Your task to perform on an android device: Go to battery settings Image 0: 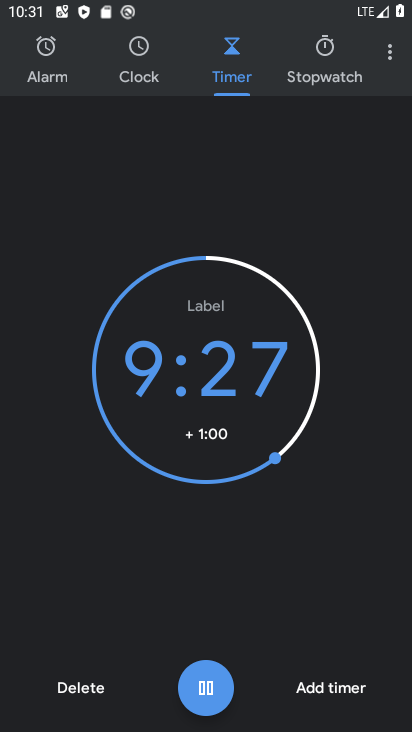
Step 0: drag from (250, 592) to (309, 423)
Your task to perform on an android device: Go to battery settings Image 1: 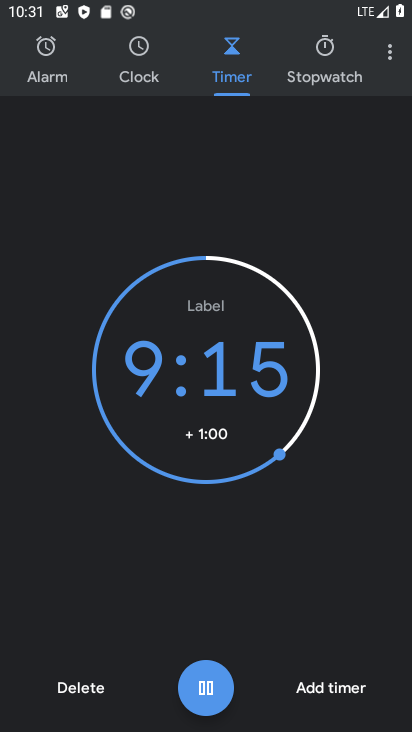
Step 1: press home button
Your task to perform on an android device: Go to battery settings Image 2: 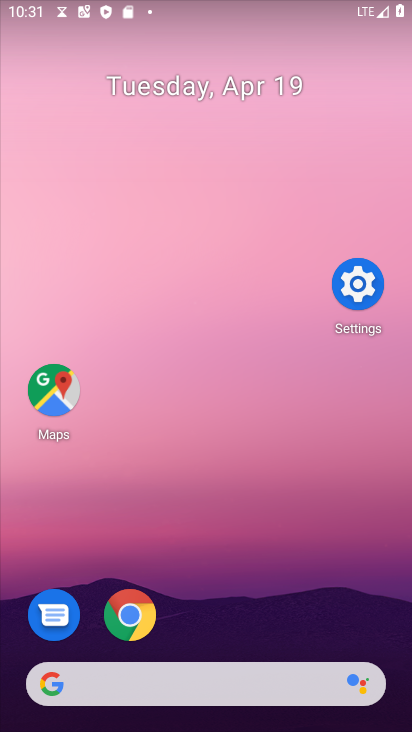
Step 2: drag from (190, 629) to (232, 54)
Your task to perform on an android device: Go to battery settings Image 3: 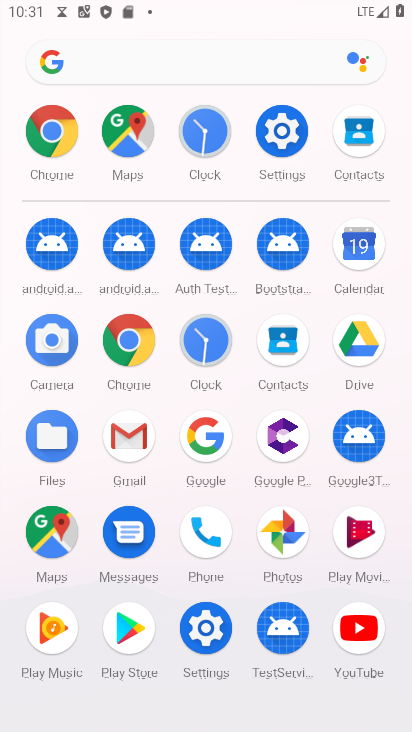
Step 3: click (202, 621)
Your task to perform on an android device: Go to battery settings Image 4: 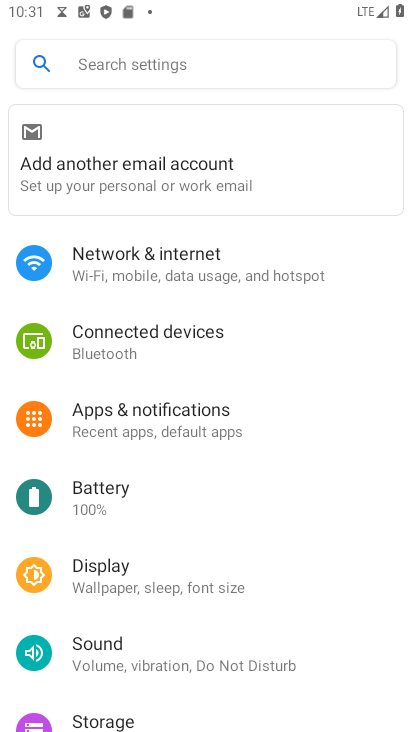
Step 4: click (142, 490)
Your task to perform on an android device: Go to battery settings Image 5: 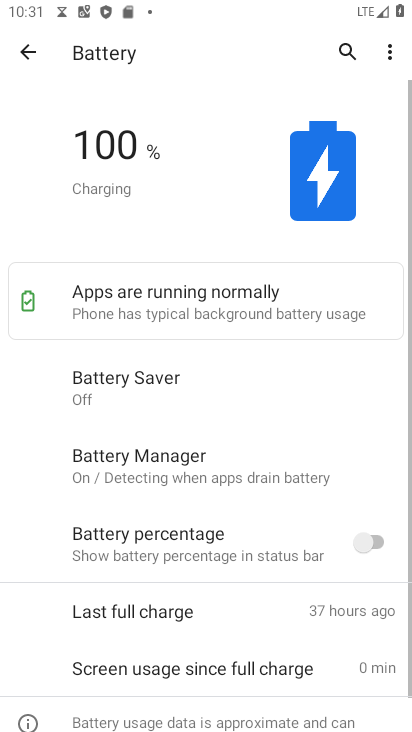
Step 5: drag from (236, 540) to (233, 126)
Your task to perform on an android device: Go to battery settings Image 6: 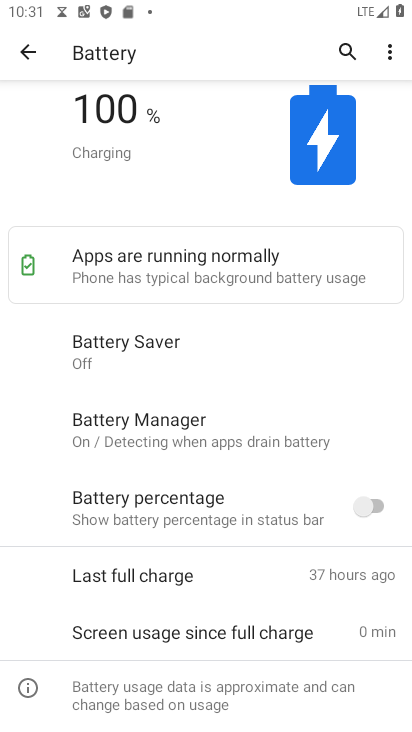
Step 6: drag from (251, 591) to (150, 15)
Your task to perform on an android device: Go to battery settings Image 7: 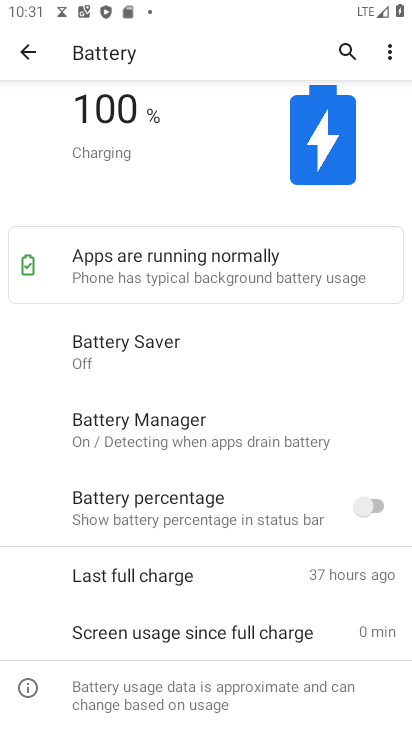
Step 7: drag from (206, 239) to (210, 195)
Your task to perform on an android device: Go to battery settings Image 8: 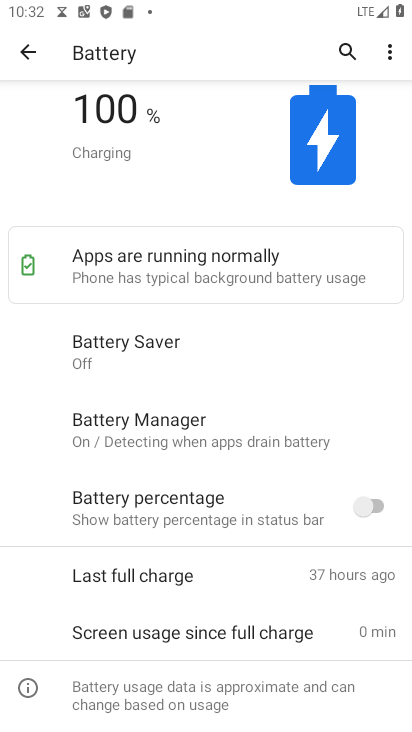
Step 8: click (380, 62)
Your task to perform on an android device: Go to battery settings Image 9: 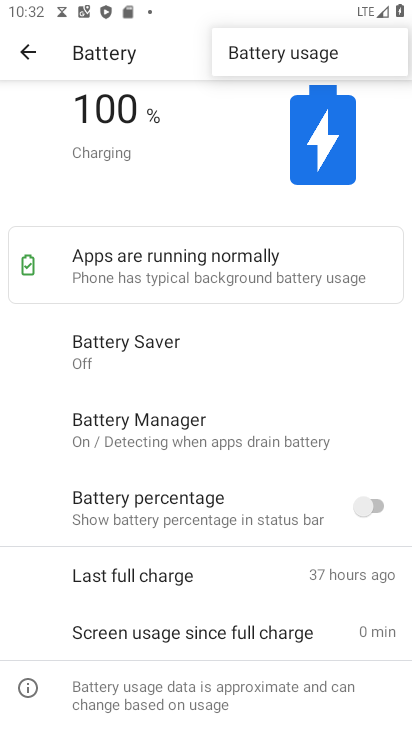
Step 9: click (337, 47)
Your task to perform on an android device: Go to battery settings Image 10: 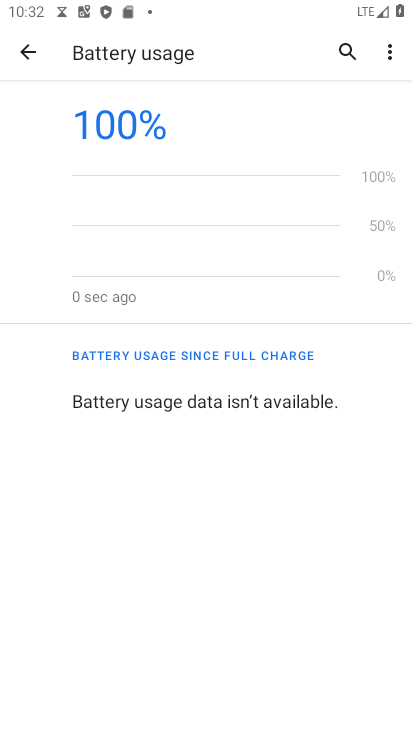
Step 10: drag from (216, 568) to (242, 243)
Your task to perform on an android device: Go to battery settings Image 11: 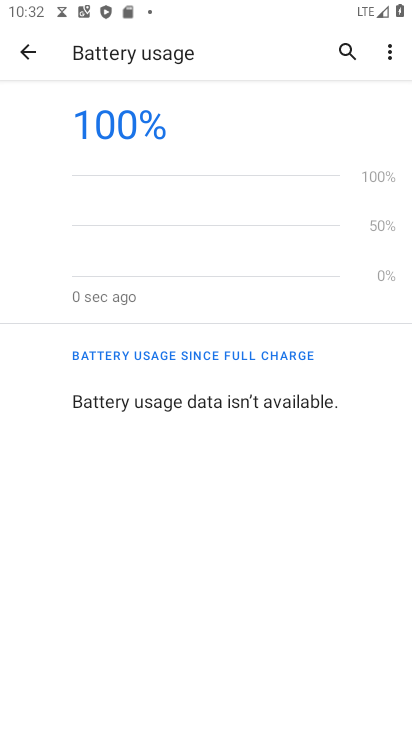
Step 11: drag from (214, 550) to (298, 152)
Your task to perform on an android device: Go to battery settings Image 12: 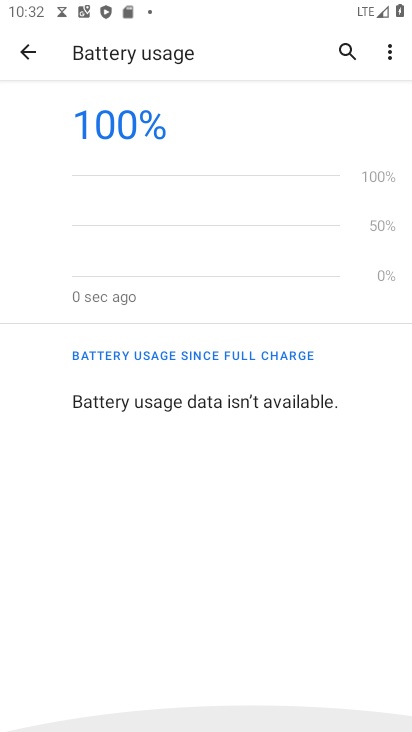
Step 12: drag from (153, 128) to (326, 533)
Your task to perform on an android device: Go to battery settings Image 13: 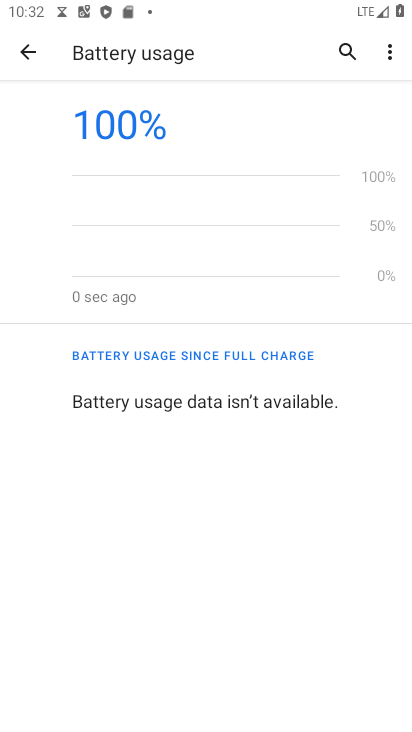
Step 13: click (391, 46)
Your task to perform on an android device: Go to battery settings Image 14: 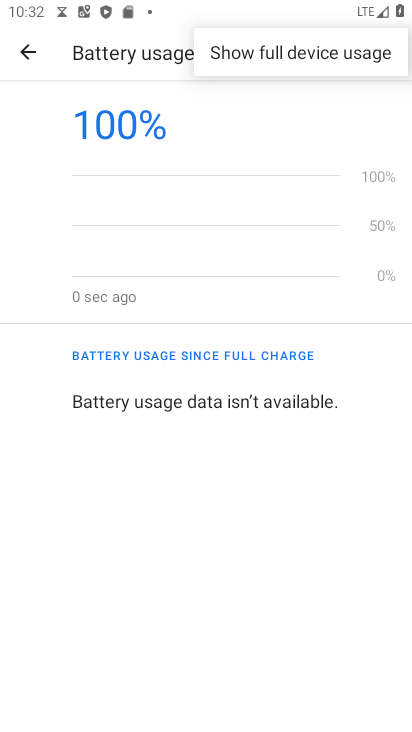
Step 14: click (258, 266)
Your task to perform on an android device: Go to battery settings Image 15: 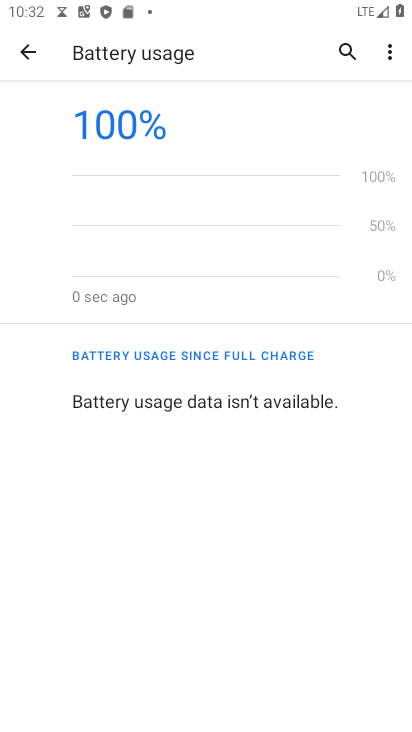
Step 15: task complete